Your task to perform on an android device: allow notifications from all sites in the chrome app Image 0: 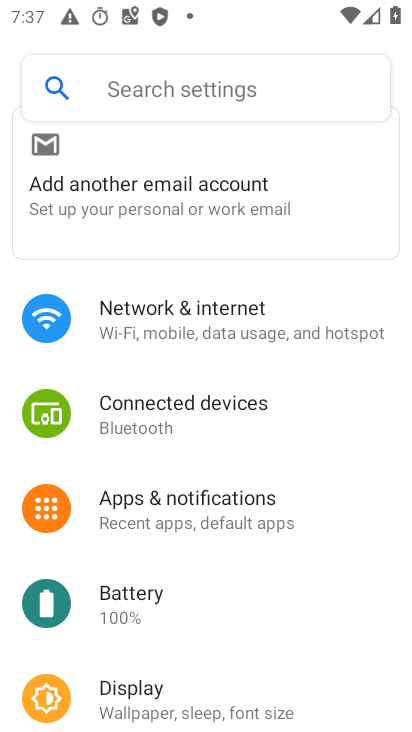
Step 0: press home button
Your task to perform on an android device: allow notifications from all sites in the chrome app Image 1: 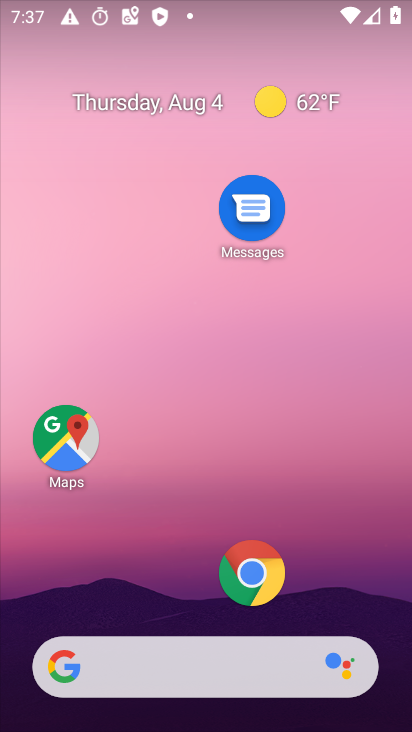
Step 1: drag from (181, 565) to (205, 120)
Your task to perform on an android device: allow notifications from all sites in the chrome app Image 2: 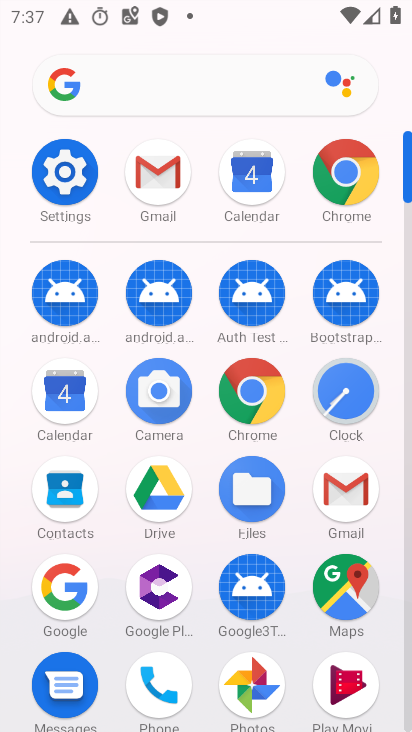
Step 2: click (341, 179)
Your task to perform on an android device: allow notifications from all sites in the chrome app Image 3: 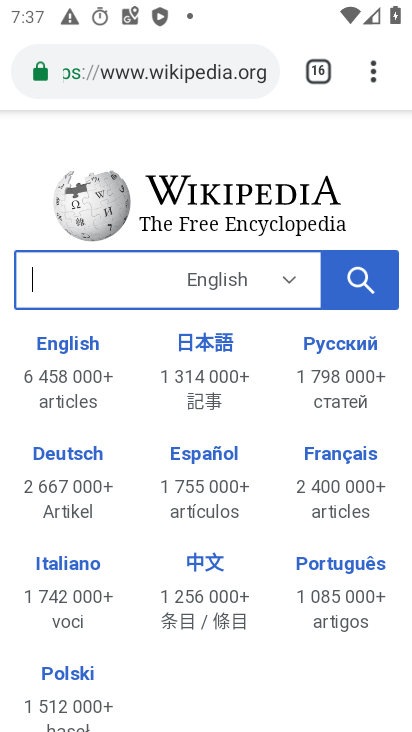
Step 3: drag from (382, 73) to (123, 576)
Your task to perform on an android device: allow notifications from all sites in the chrome app Image 4: 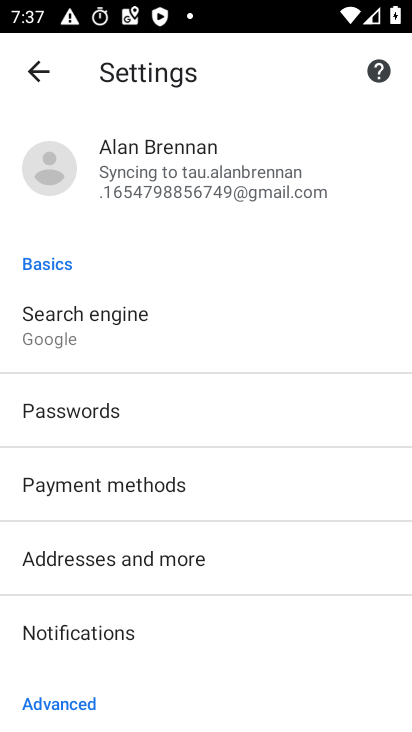
Step 4: drag from (225, 617) to (231, 232)
Your task to perform on an android device: allow notifications from all sites in the chrome app Image 5: 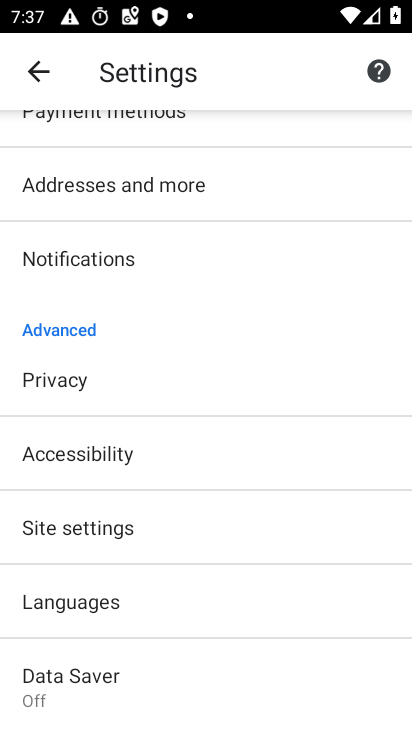
Step 5: click (87, 534)
Your task to perform on an android device: allow notifications from all sites in the chrome app Image 6: 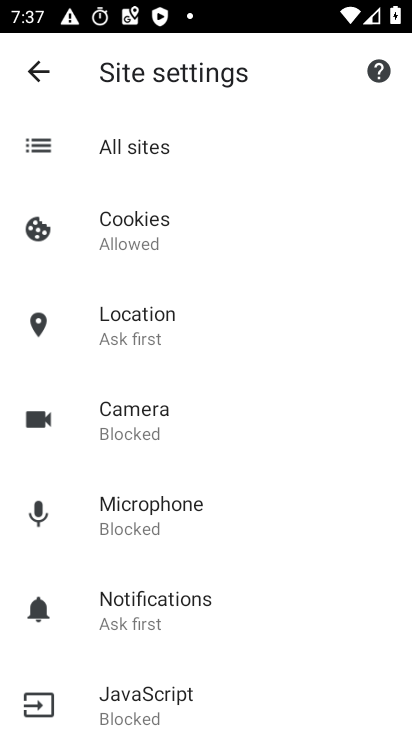
Step 6: click (147, 611)
Your task to perform on an android device: allow notifications from all sites in the chrome app Image 7: 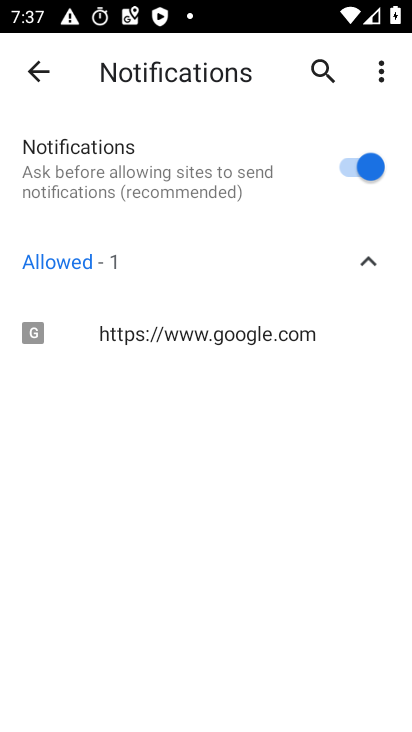
Step 7: task complete